Your task to perform on an android device: turn on improve location accuracy Image 0: 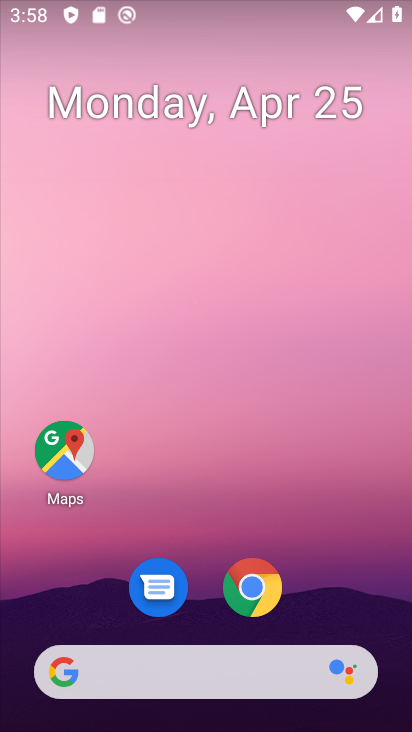
Step 0: drag from (204, 558) to (219, 187)
Your task to perform on an android device: turn on improve location accuracy Image 1: 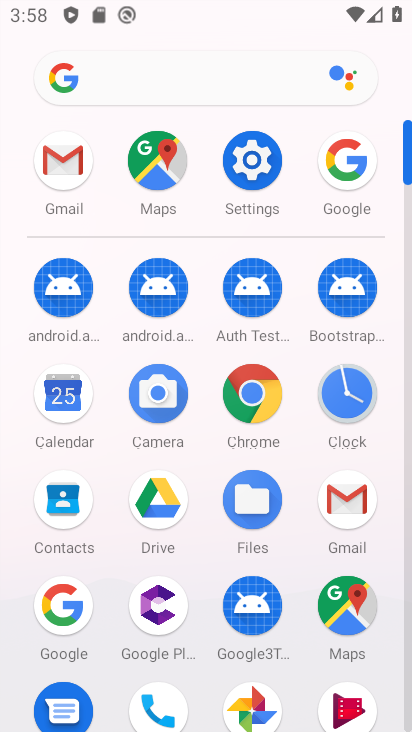
Step 1: click (252, 158)
Your task to perform on an android device: turn on improve location accuracy Image 2: 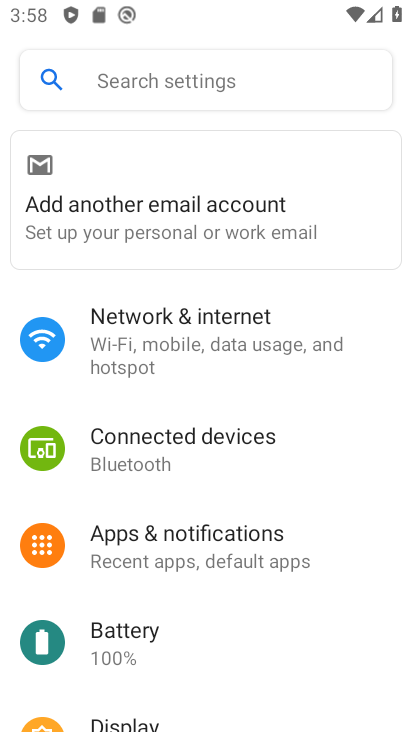
Step 2: drag from (229, 597) to (286, 53)
Your task to perform on an android device: turn on improve location accuracy Image 3: 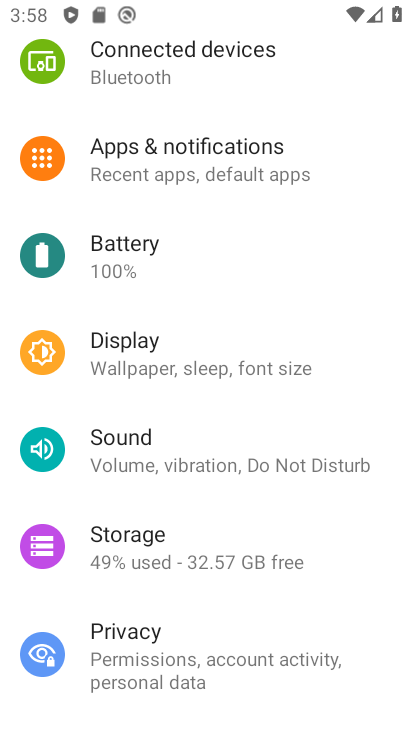
Step 3: drag from (208, 580) to (209, 293)
Your task to perform on an android device: turn on improve location accuracy Image 4: 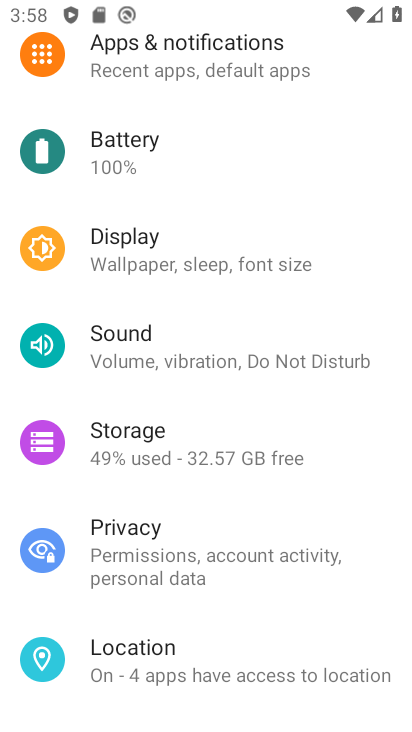
Step 4: click (178, 671)
Your task to perform on an android device: turn on improve location accuracy Image 5: 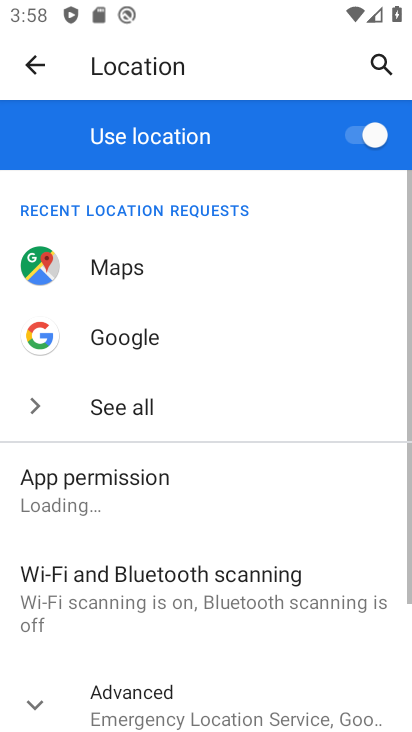
Step 5: drag from (186, 632) to (226, 320)
Your task to perform on an android device: turn on improve location accuracy Image 6: 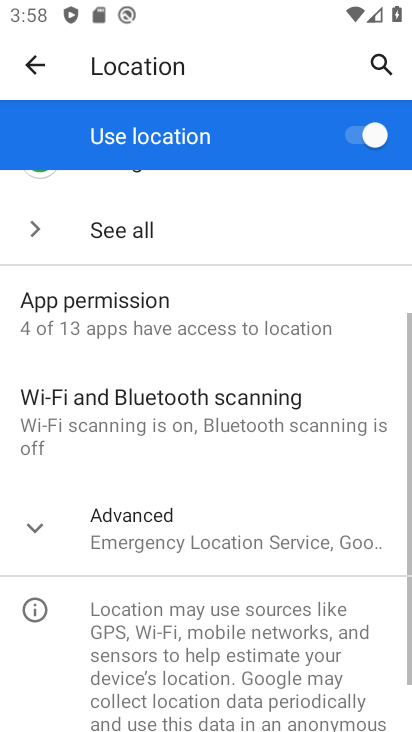
Step 6: click (145, 523)
Your task to perform on an android device: turn on improve location accuracy Image 7: 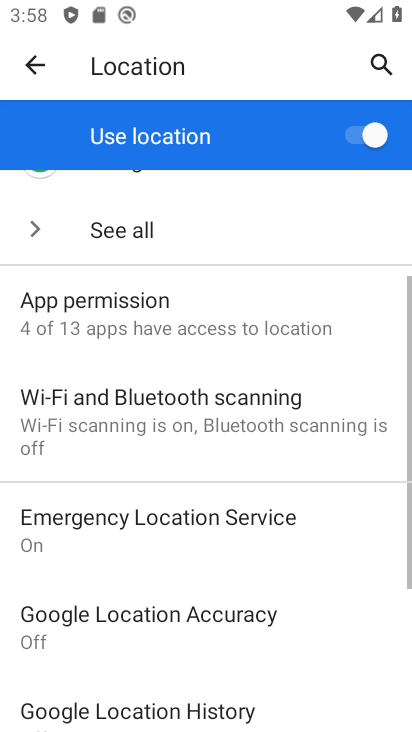
Step 7: drag from (145, 523) to (232, 290)
Your task to perform on an android device: turn on improve location accuracy Image 8: 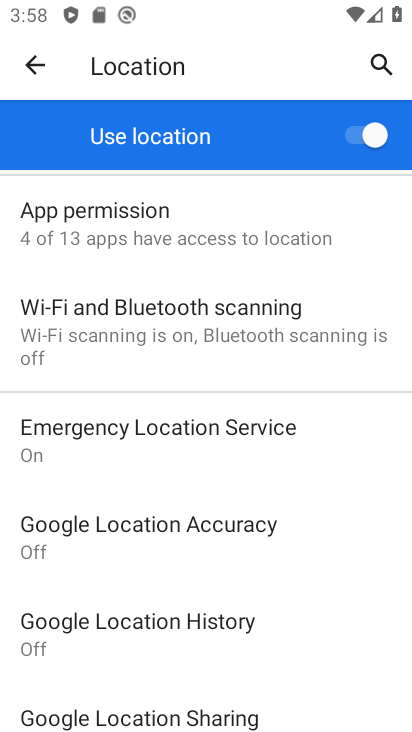
Step 8: click (149, 546)
Your task to perform on an android device: turn on improve location accuracy Image 9: 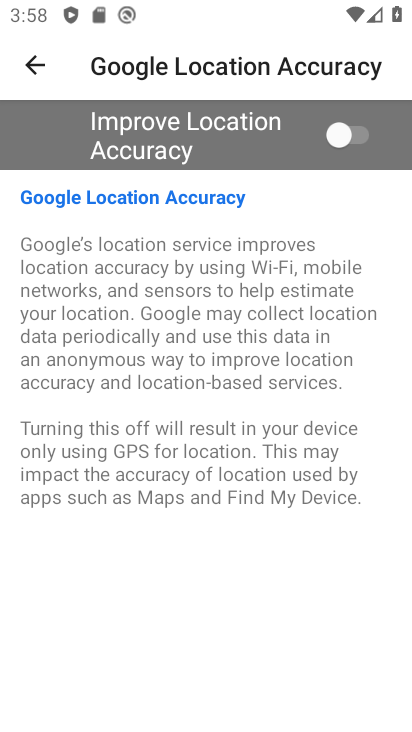
Step 9: click (351, 136)
Your task to perform on an android device: turn on improve location accuracy Image 10: 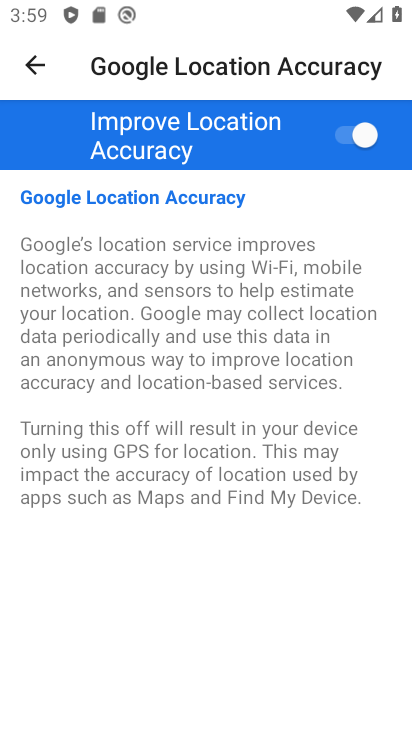
Step 10: task complete